Your task to perform on an android device: Search for "alienware aurora" on newegg.com, select the first entry, and add it to the cart. Image 0: 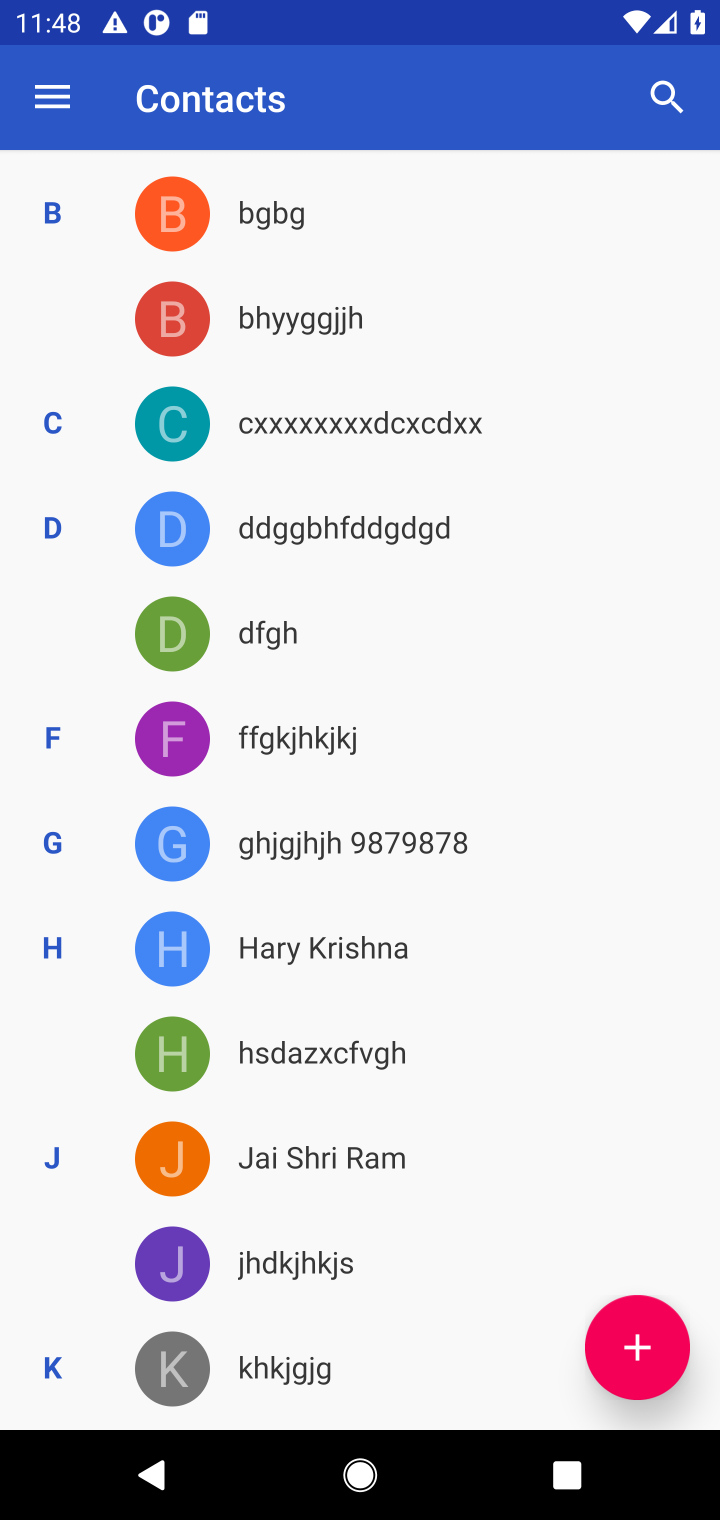
Step 0: press home button
Your task to perform on an android device: Search for "alienware aurora" on newegg.com, select the first entry, and add it to the cart. Image 1: 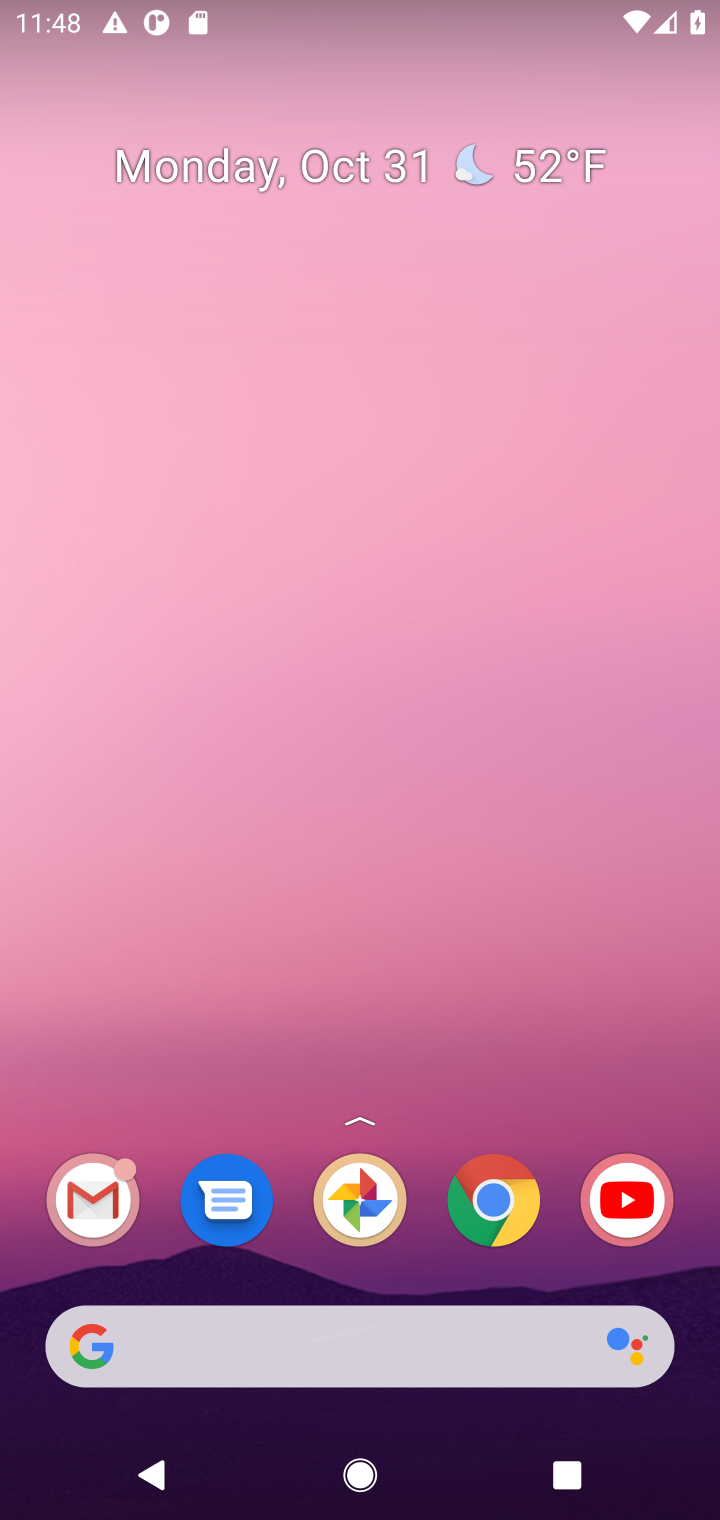
Step 1: click (512, 1217)
Your task to perform on an android device: Search for "alienware aurora" on newegg.com, select the first entry, and add it to the cart. Image 2: 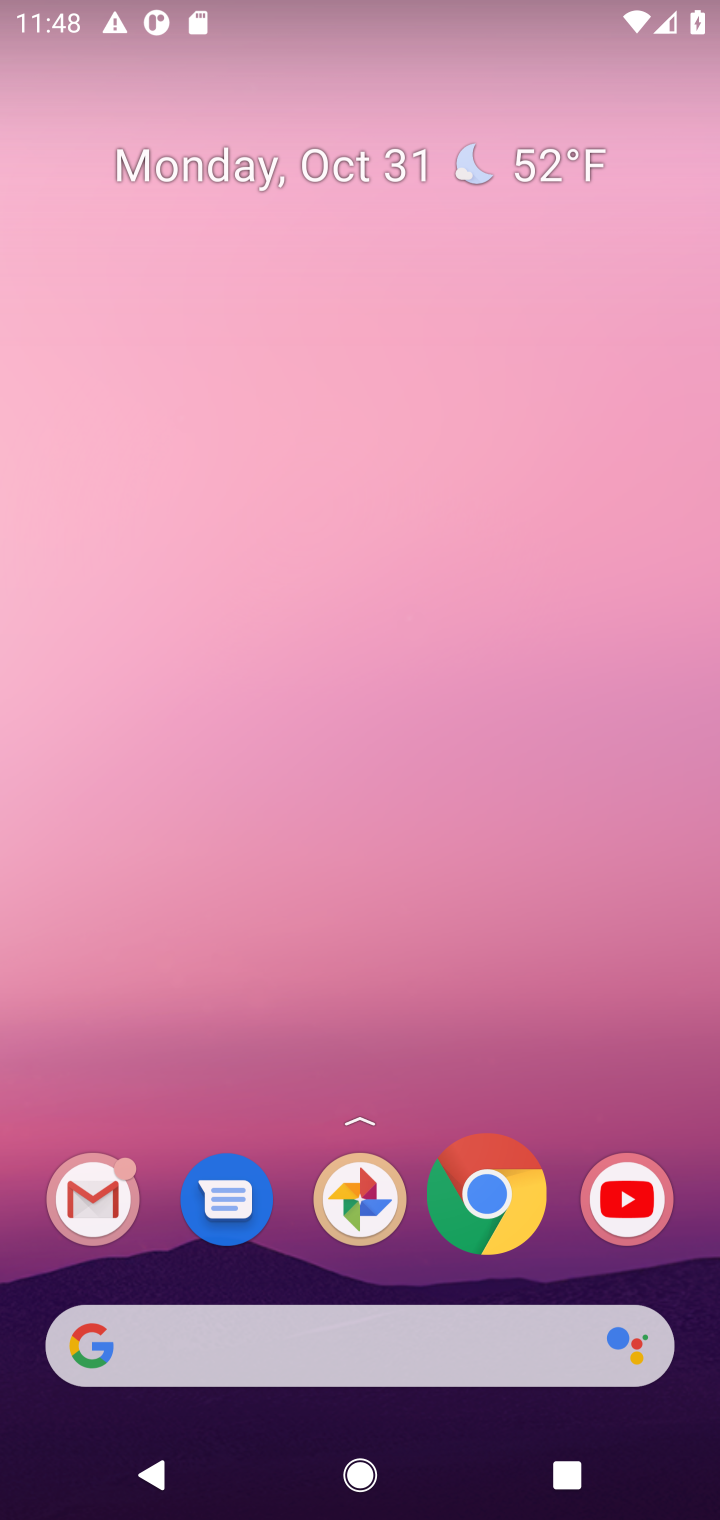
Step 2: click (508, 1209)
Your task to perform on an android device: Search for "alienware aurora" on newegg.com, select the first entry, and add it to the cart. Image 3: 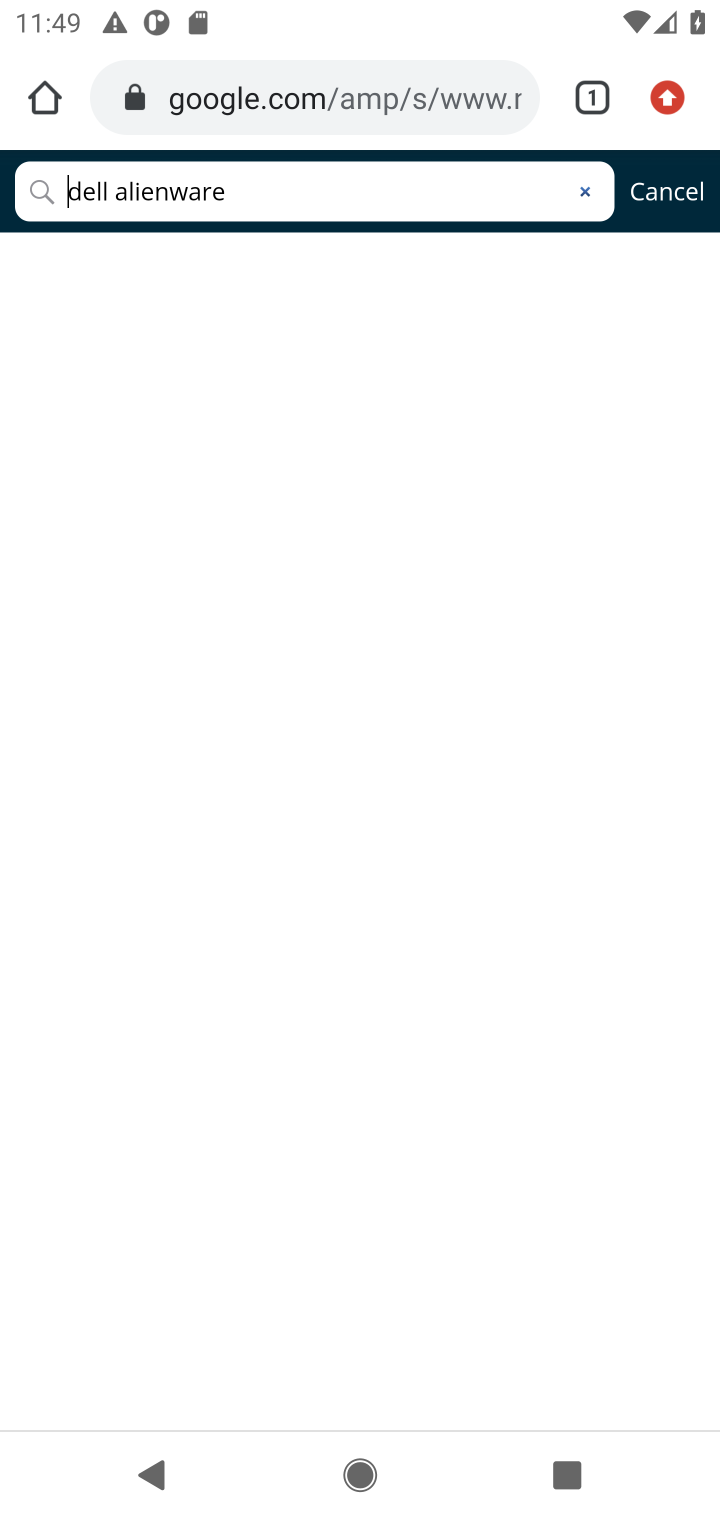
Step 3: click (379, 113)
Your task to perform on an android device: Search for "alienware aurora" on newegg.com, select the first entry, and add it to the cart. Image 4: 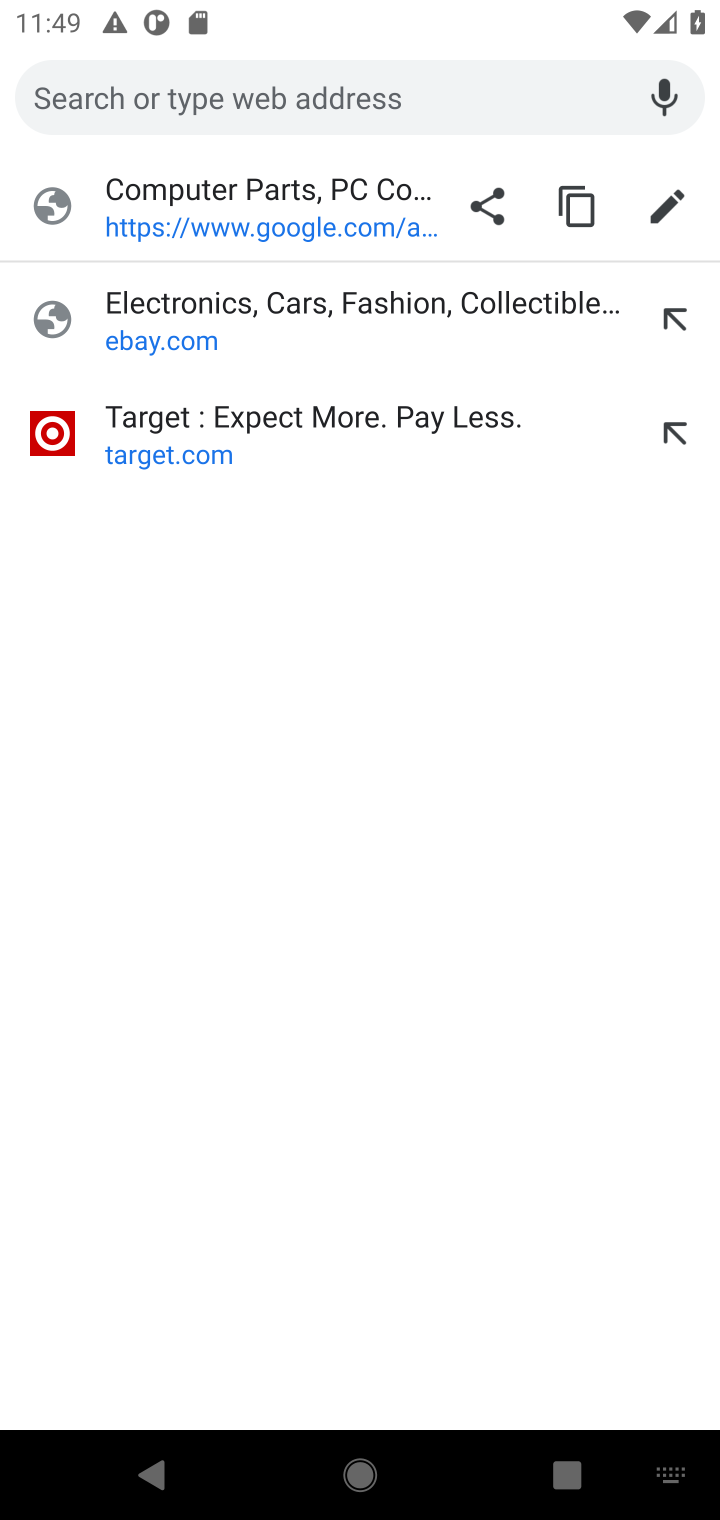
Step 4: type "newegg.com"
Your task to perform on an android device: Search for "alienware aurora" on newegg.com, select the first entry, and add it to the cart. Image 5: 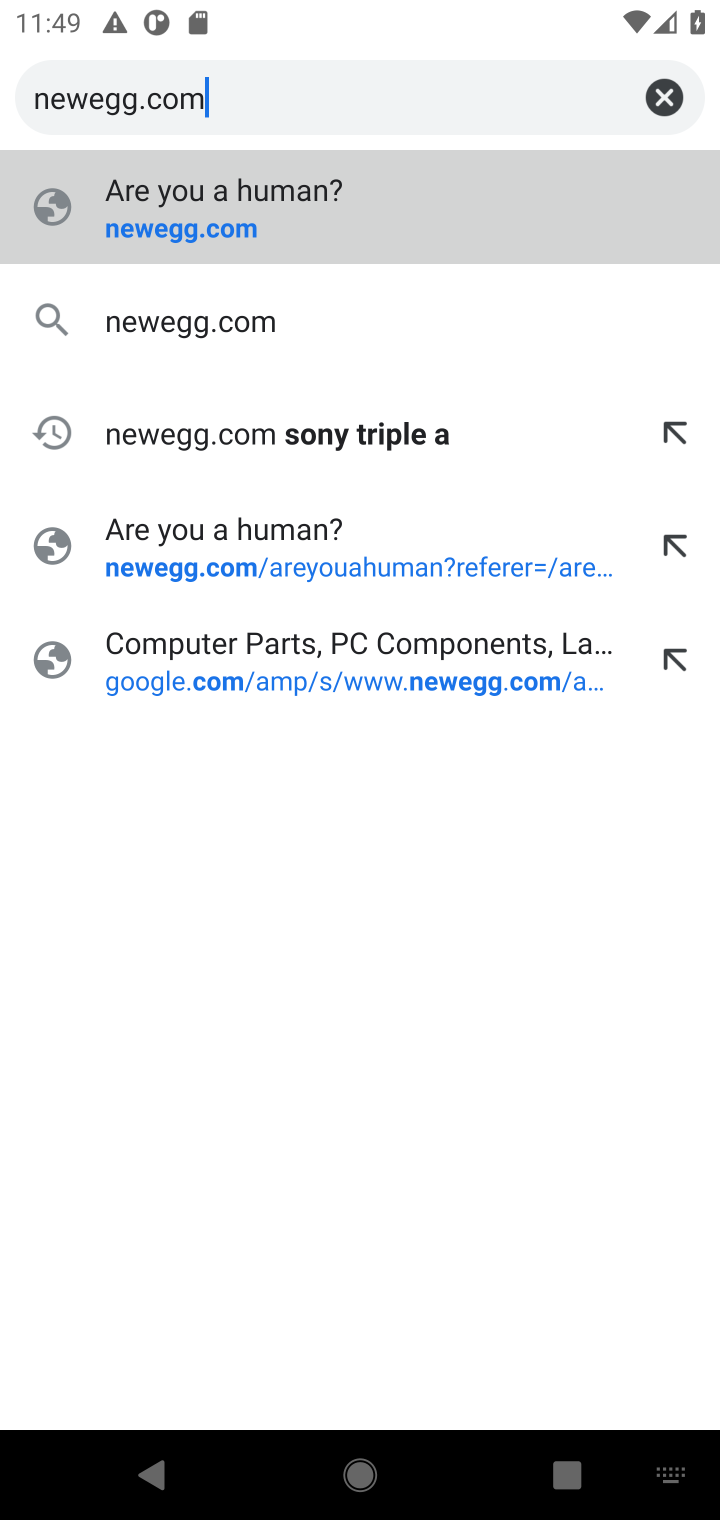
Step 5: click (225, 336)
Your task to perform on an android device: Search for "alienware aurora" on newegg.com, select the first entry, and add it to the cart. Image 6: 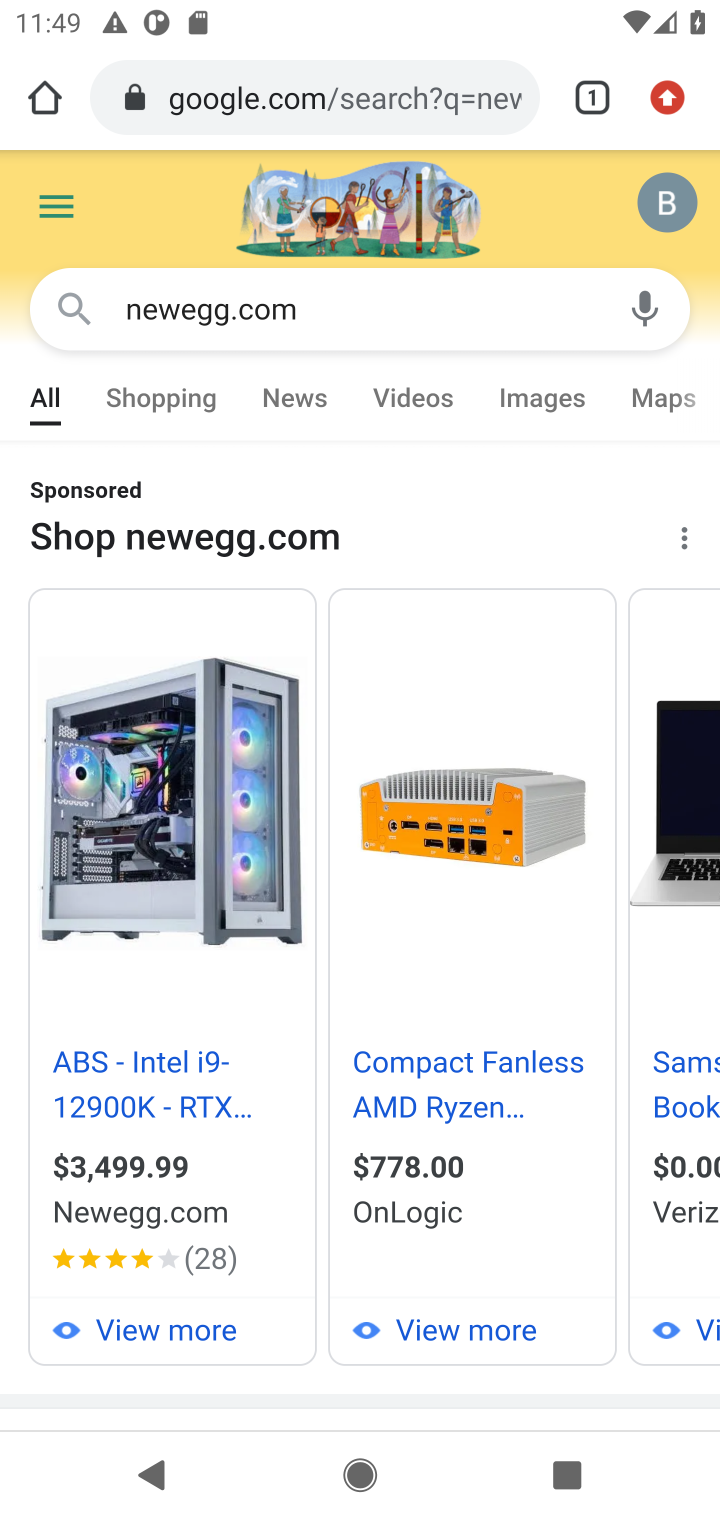
Step 6: drag from (319, 1128) to (338, 414)
Your task to perform on an android device: Search for "alienware aurora" on newegg.com, select the first entry, and add it to the cart. Image 7: 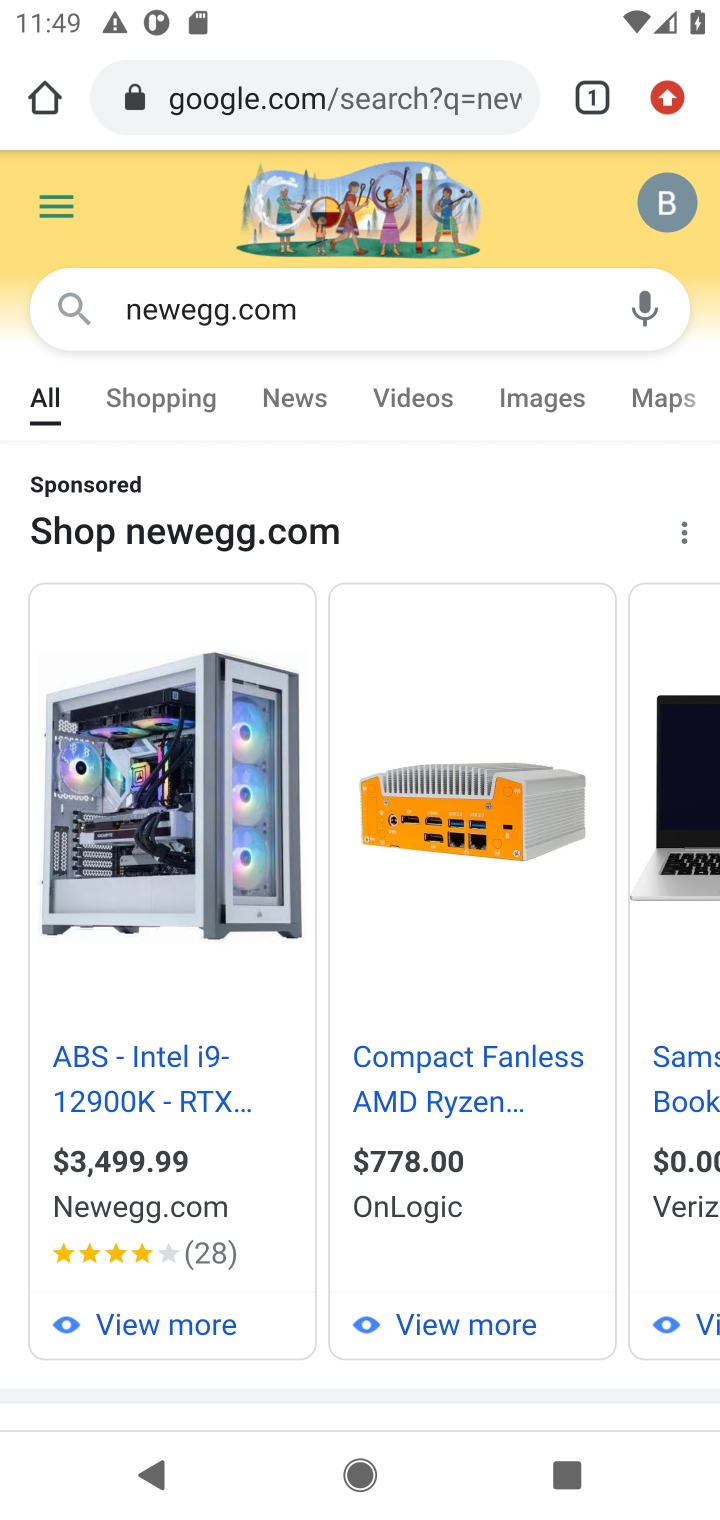
Step 7: drag from (372, 1261) to (401, 459)
Your task to perform on an android device: Search for "alienware aurora" on newegg.com, select the first entry, and add it to the cart. Image 8: 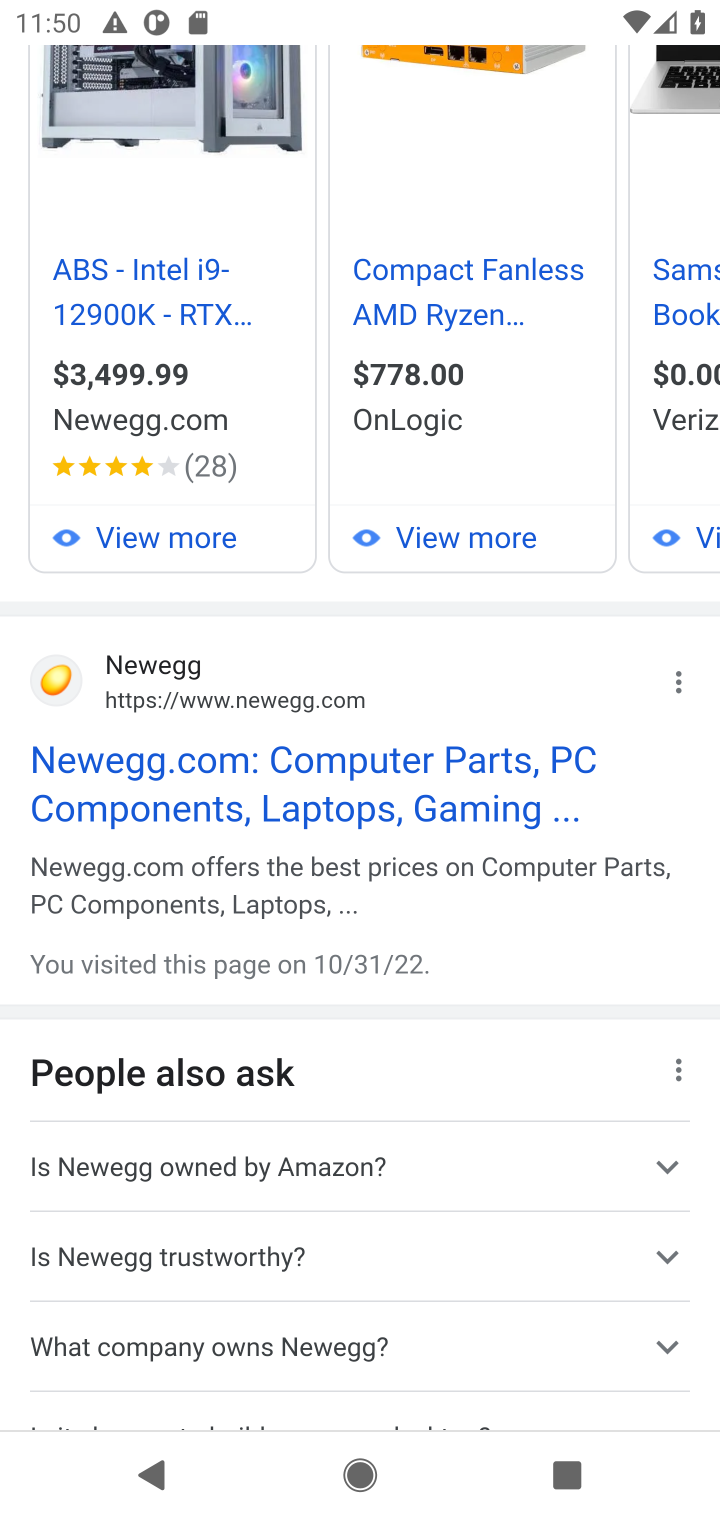
Step 8: click (150, 714)
Your task to perform on an android device: Search for "alienware aurora" on newegg.com, select the first entry, and add it to the cart. Image 9: 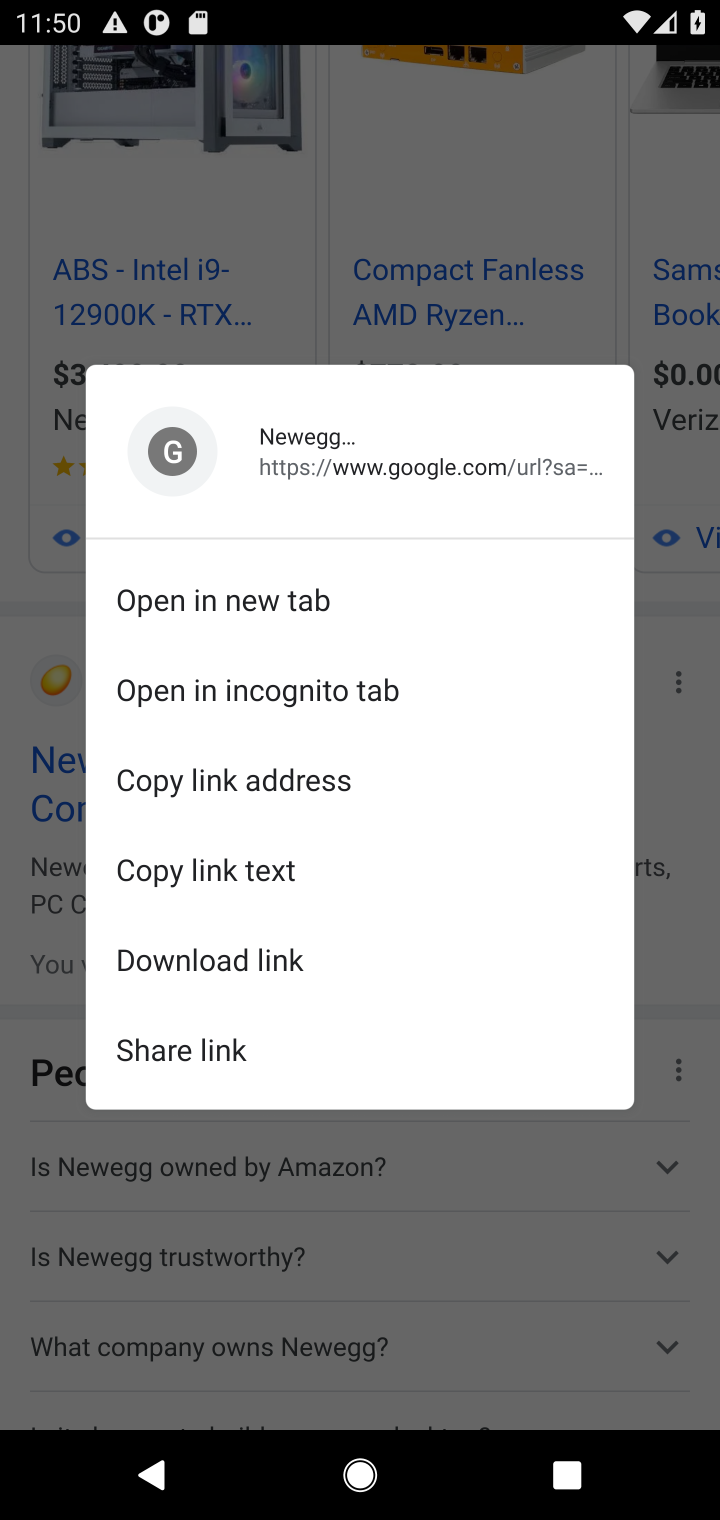
Step 9: click (54, 681)
Your task to perform on an android device: Search for "alienware aurora" on newegg.com, select the first entry, and add it to the cart. Image 10: 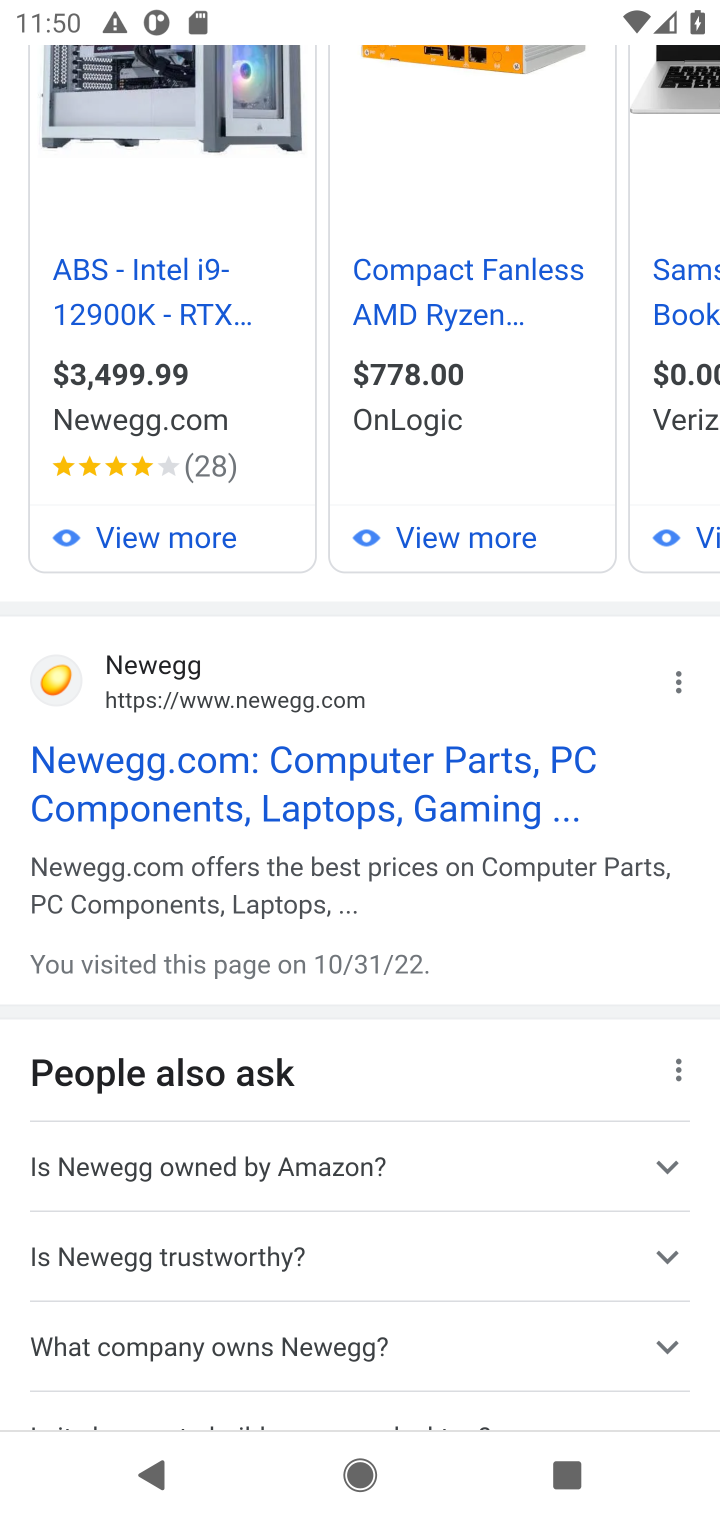
Step 10: click (177, 699)
Your task to perform on an android device: Search for "alienware aurora" on newegg.com, select the first entry, and add it to the cart. Image 11: 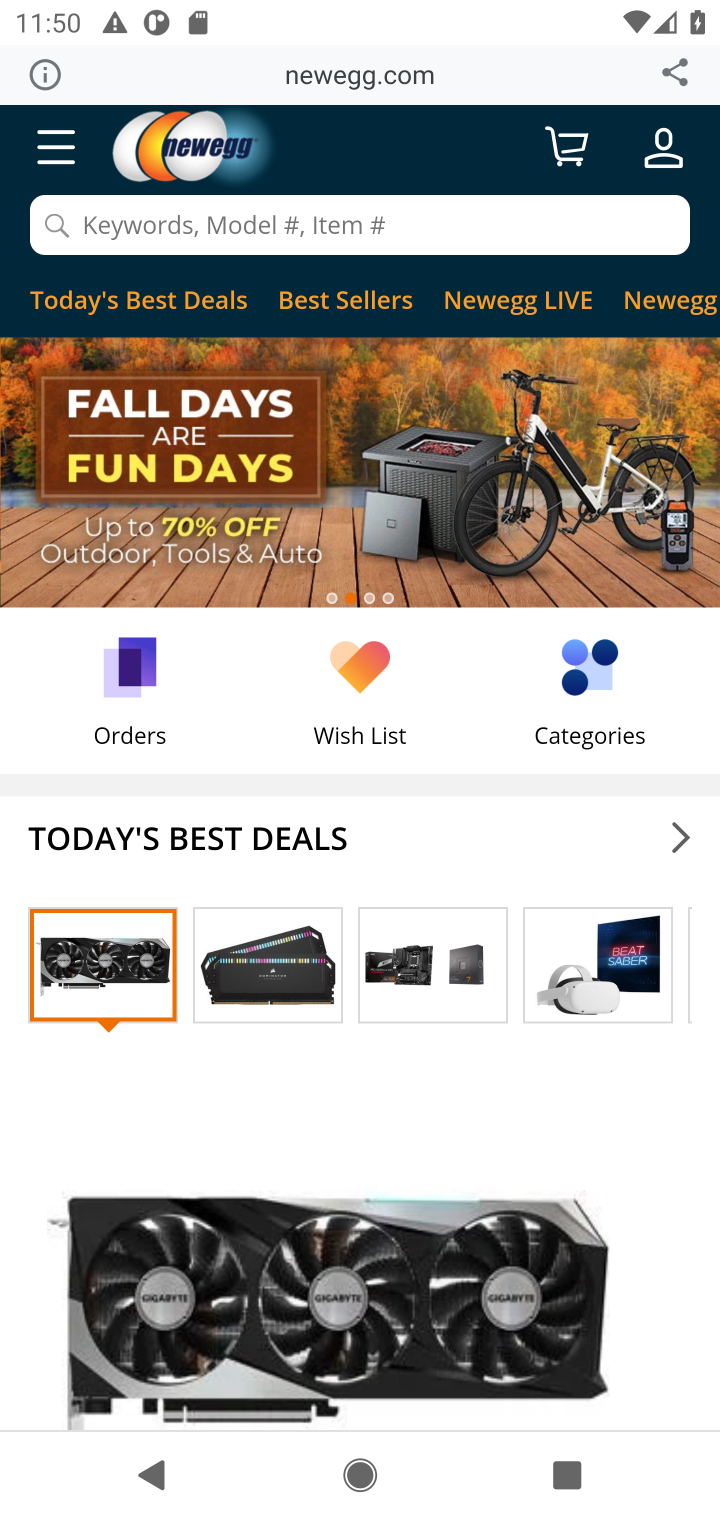
Step 11: click (325, 233)
Your task to perform on an android device: Search for "alienware aurora" on newegg.com, select the first entry, and add it to the cart. Image 12: 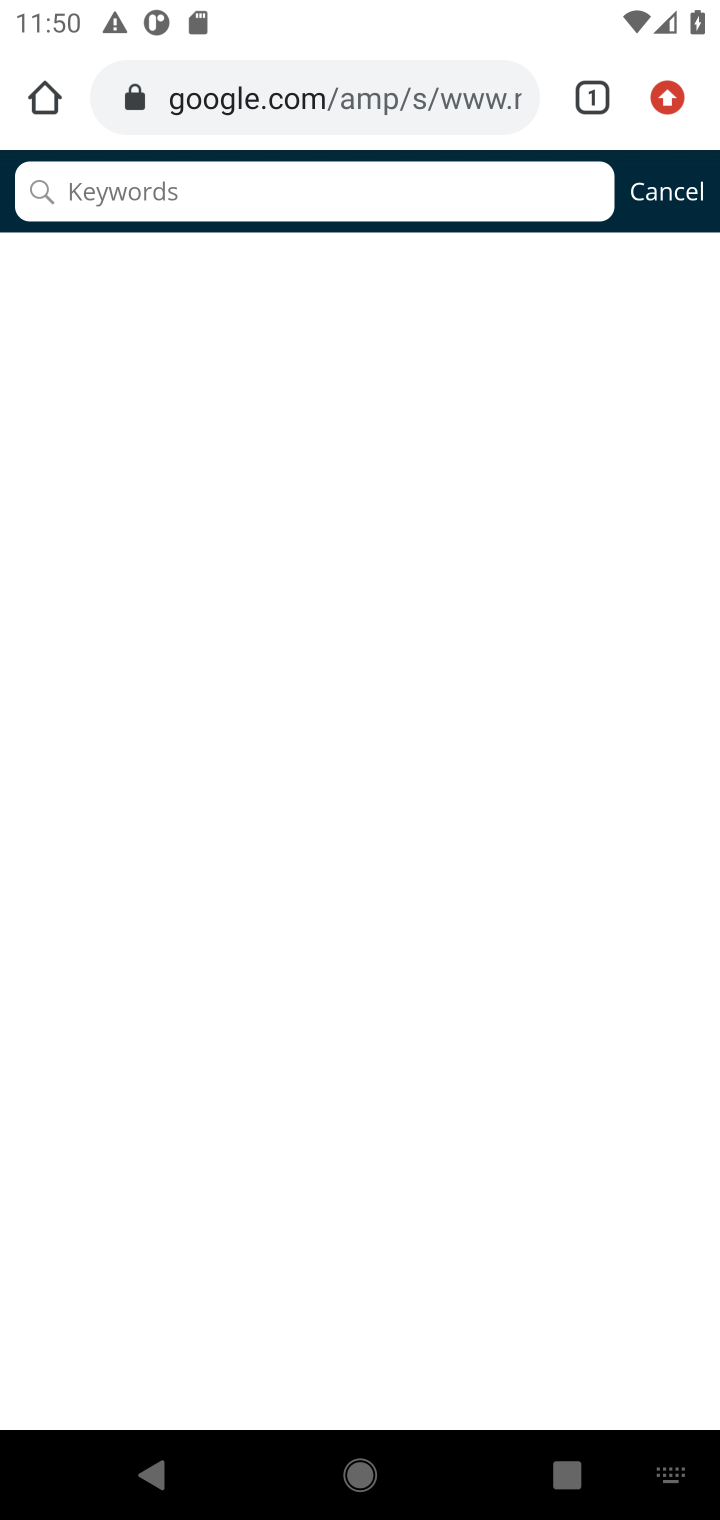
Step 12: type "alienware aurora"
Your task to perform on an android device: Search for "alienware aurora" on newegg.com, select the first entry, and add it to the cart. Image 13: 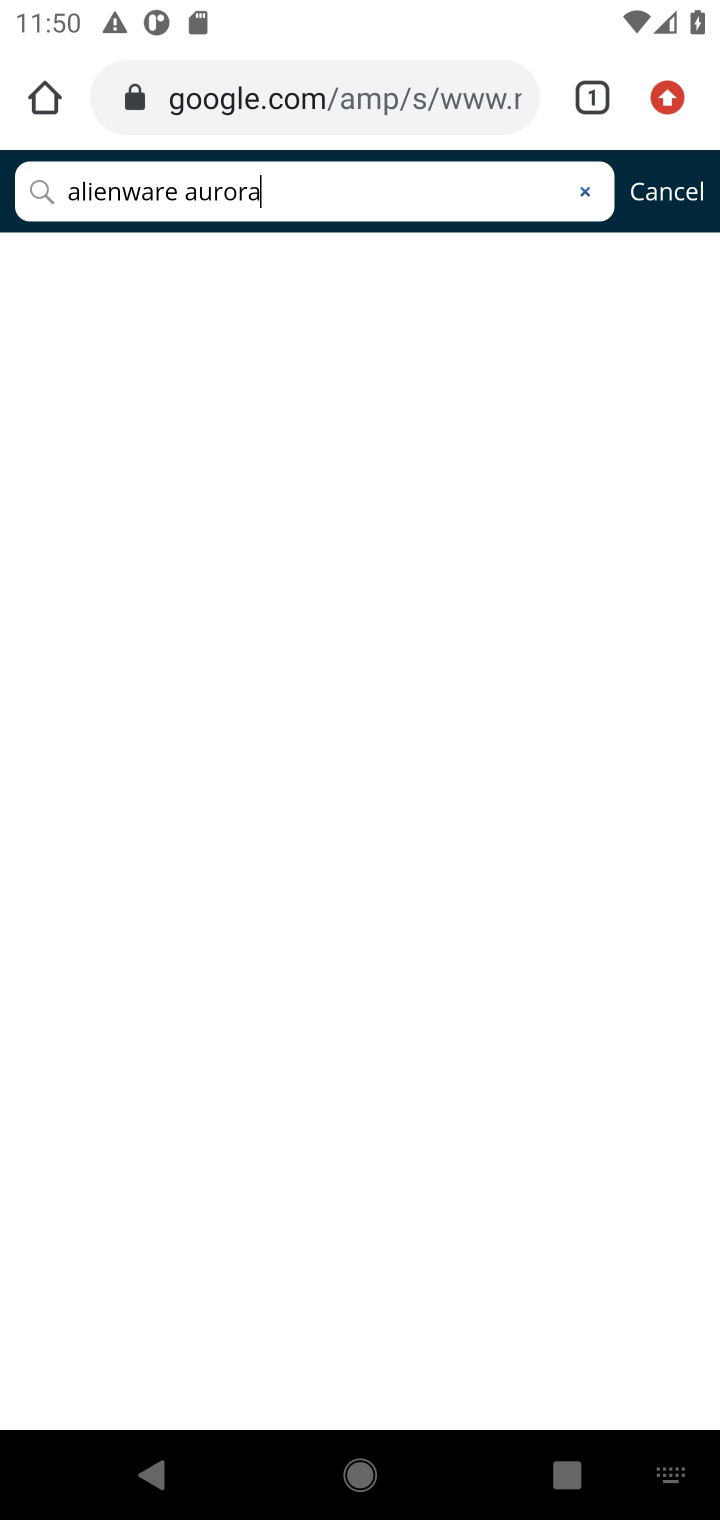
Step 13: click (324, 193)
Your task to perform on an android device: Search for "alienware aurora" on newegg.com, select the first entry, and add it to the cart. Image 14: 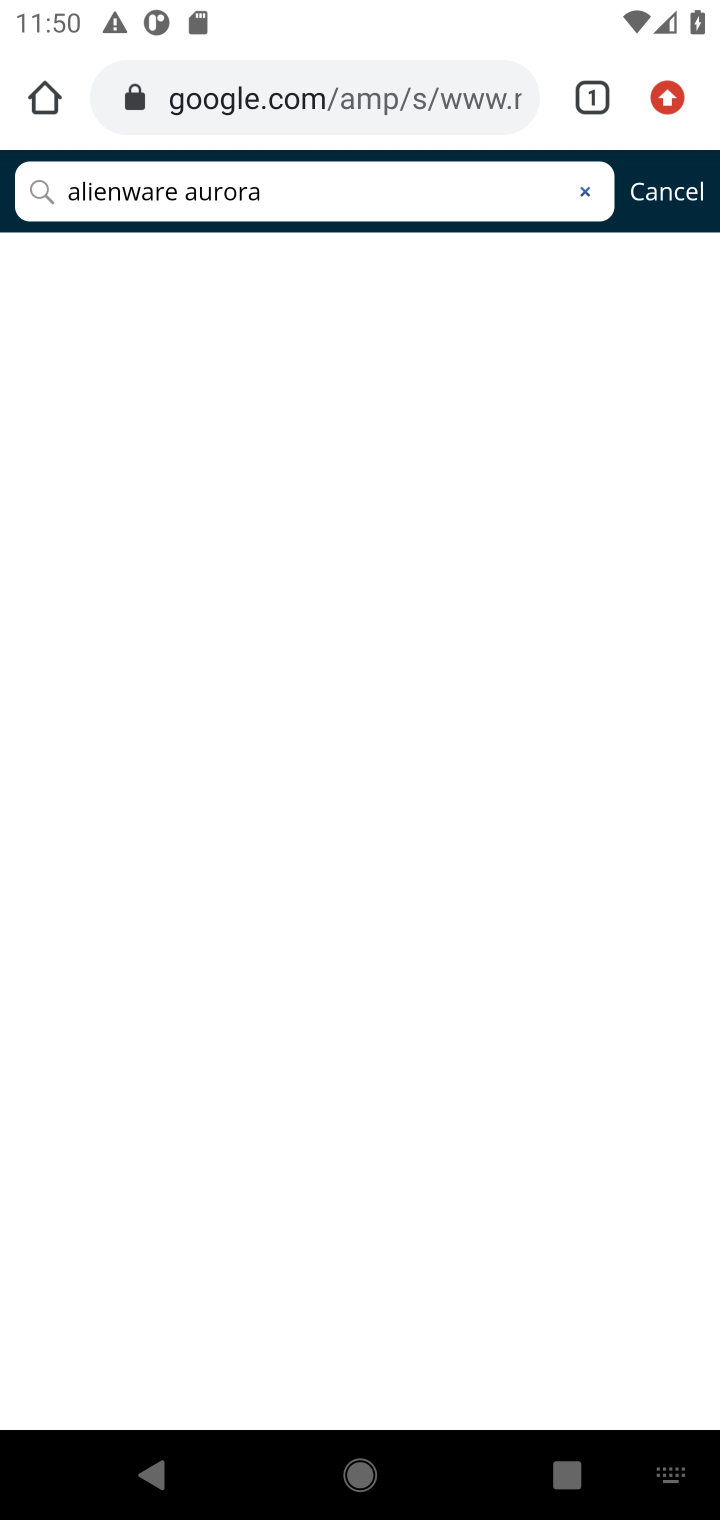
Step 14: click (23, 193)
Your task to perform on an android device: Search for "alienware aurora" on newegg.com, select the first entry, and add it to the cart. Image 15: 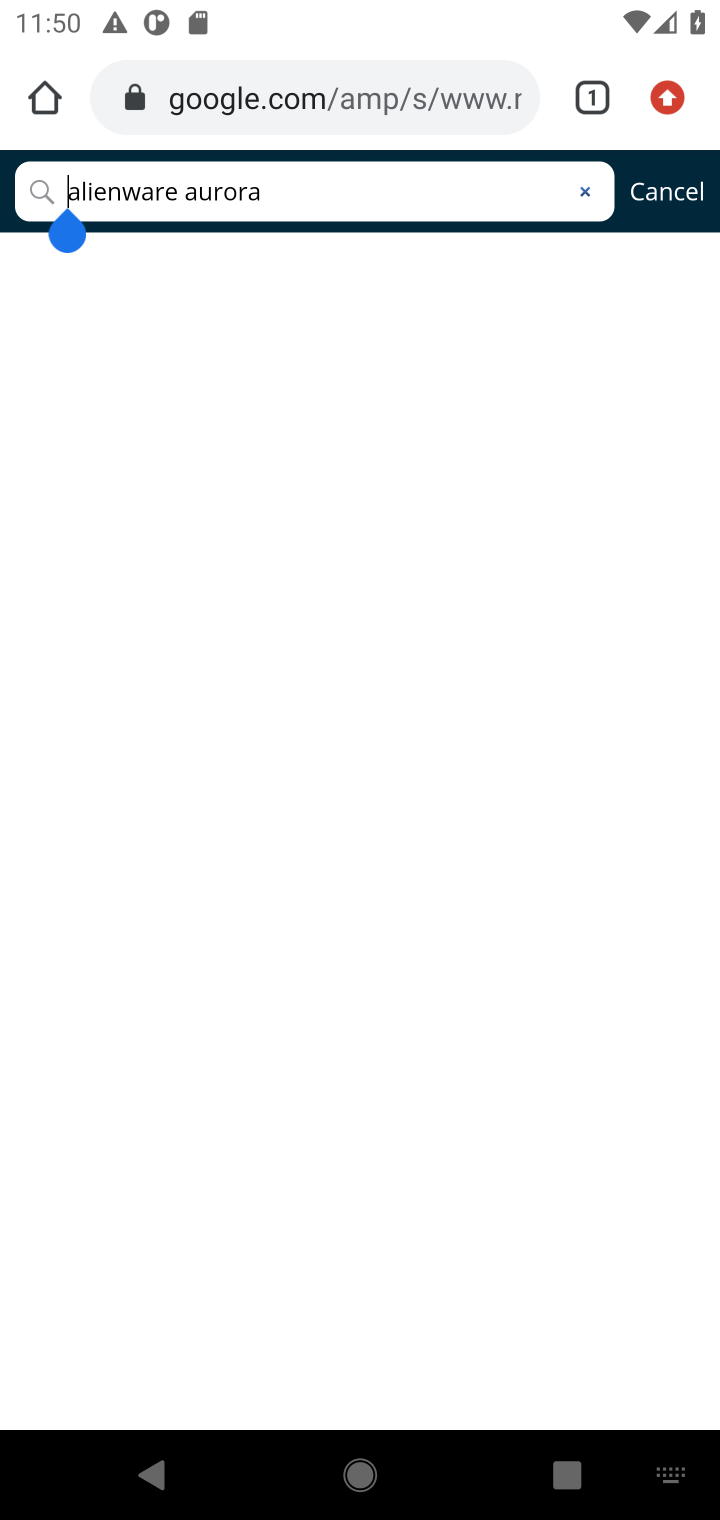
Step 15: click (46, 201)
Your task to perform on an android device: Search for "alienware aurora" on newegg.com, select the first entry, and add it to the cart. Image 16: 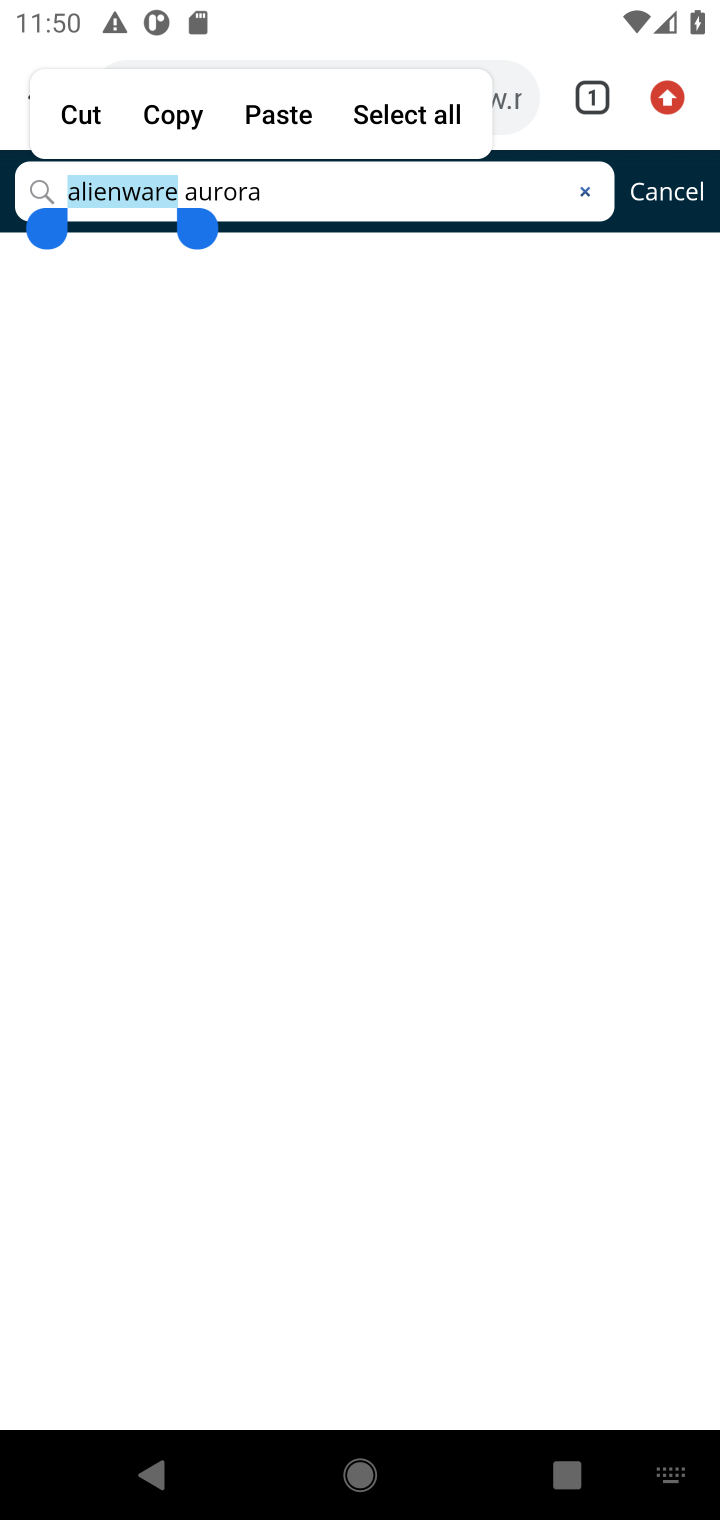
Step 16: click (353, 221)
Your task to perform on an android device: Search for "alienware aurora" on newegg.com, select the first entry, and add it to the cart. Image 17: 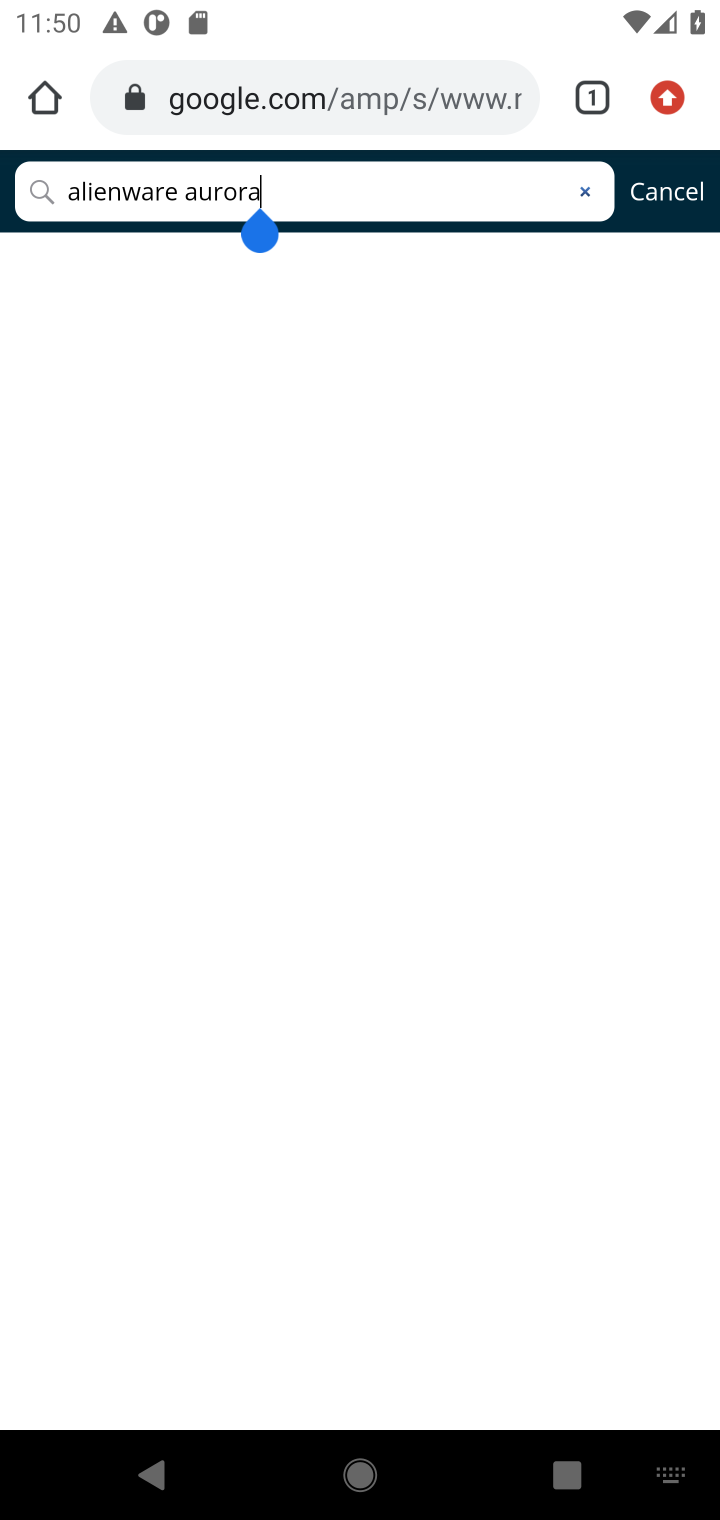
Step 17: task complete